Your task to perform on an android device: turn on the 12-hour format for clock Image 0: 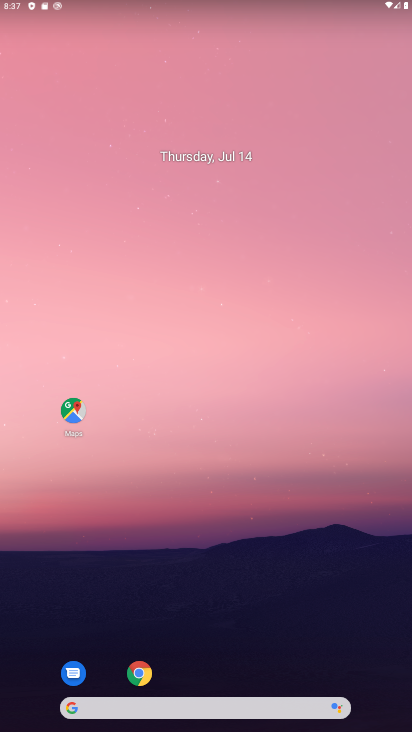
Step 0: drag from (205, 682) to (345, 105)
Your task to perform on an android device: turn on the 12-hour format for clock Image 1: 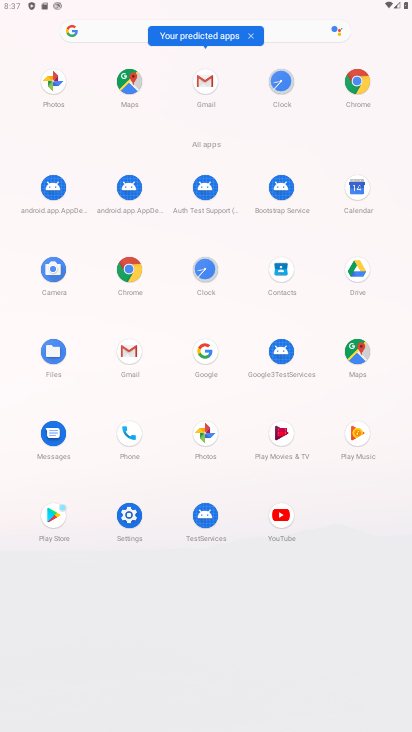
Step 1: click (213, 274)
Your task to perform on an android device: turn on the 12-hour format for clock Image 2: 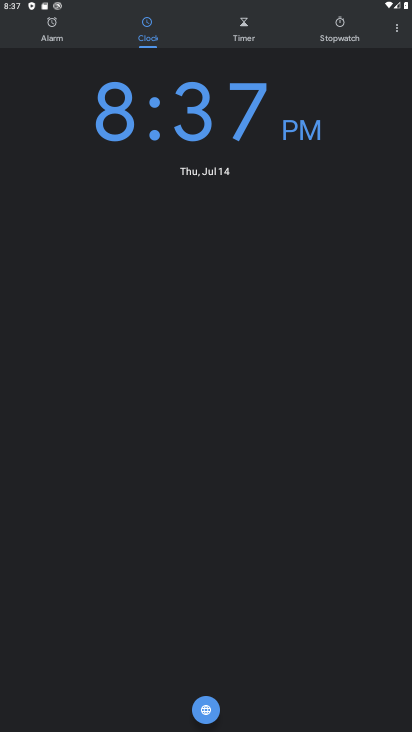
Step 2: click (395, 32)
Your task to perform on an android device: turn on the 12-hour format for clock Image 3: 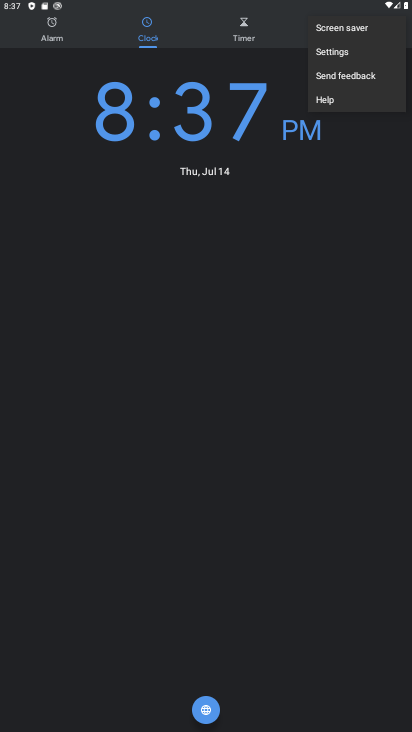
Step 3: click (385, 46)
Your task to perform on an android device: turn on the 12-hour format for clock Image 4: 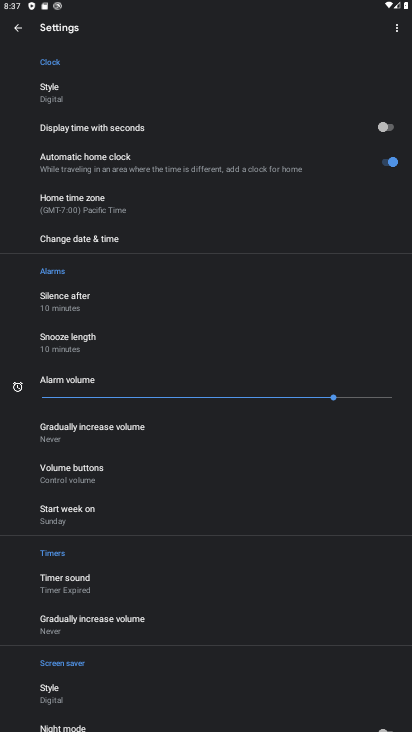
Step 4: click (166, 246)
Your task to perform on an android device: turn on the 12-hour format for clock Image 5: 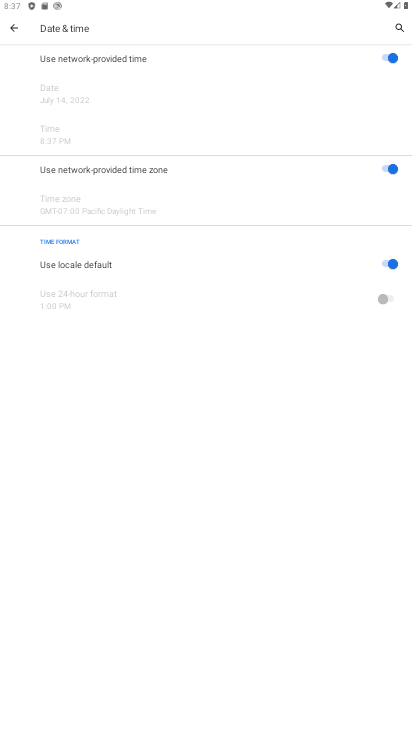
Step 5: task complete